Your task to perform on an android device: clear history in the chrome app Image 0: 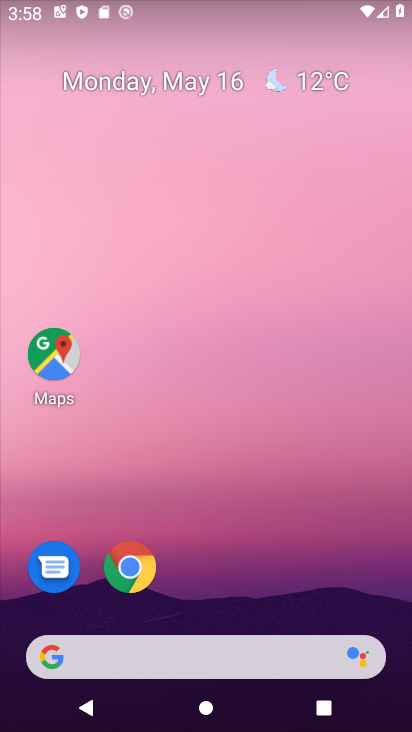
Step 0: drag from (210, 526) to (207, 26)
Your task to perform on an android device: clear history in the chrome app Image 1: 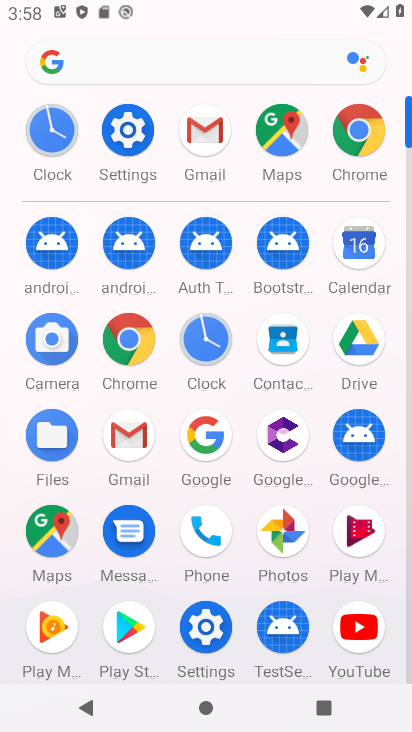
Step 1: click (129, 337)
Your task to perform on an android device: clear history in the chrome app Image 2: 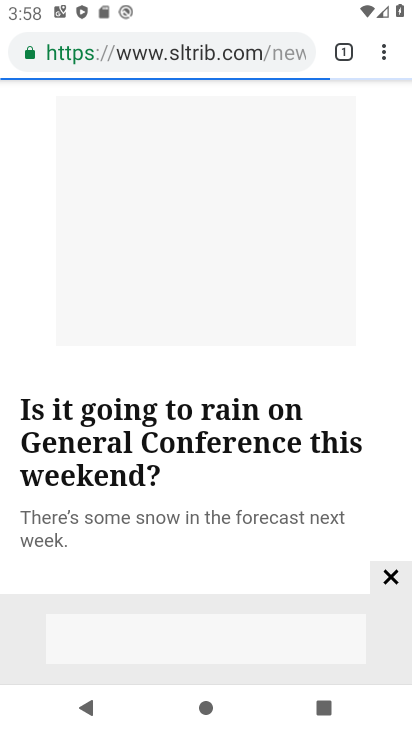
Step 2: drag from (387, 62) to (249, 297)
Your task to perform on an android device: clear history in the chrome app Image 3: 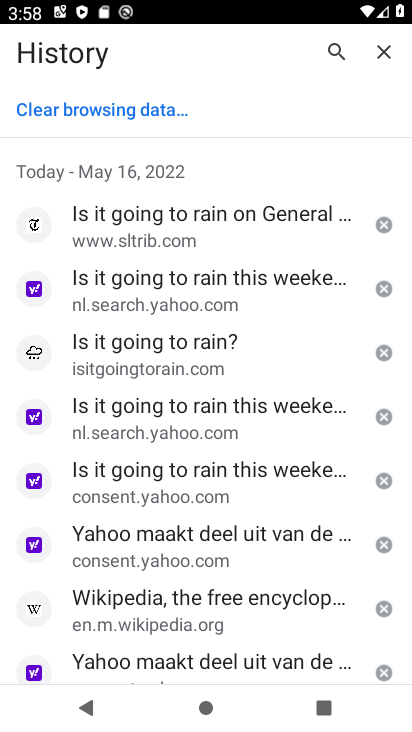
Step 3: click (124, 108)
Your task to perform on an android device: clear history in the chrome app Image 4: 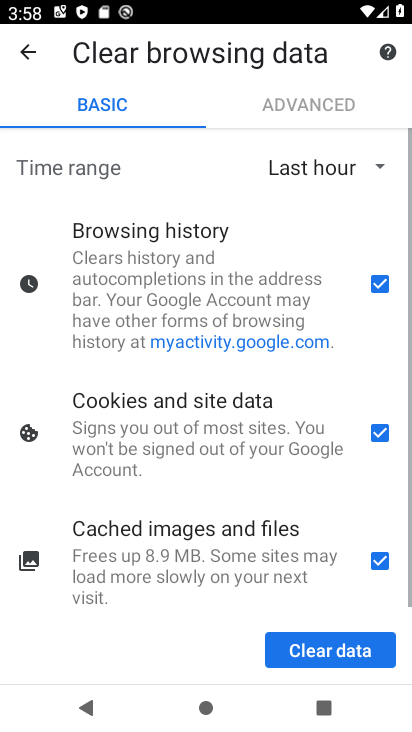
Step 4: click (328, 646)
Your task to perform on an android device: clear history in the chrome app Image 5: 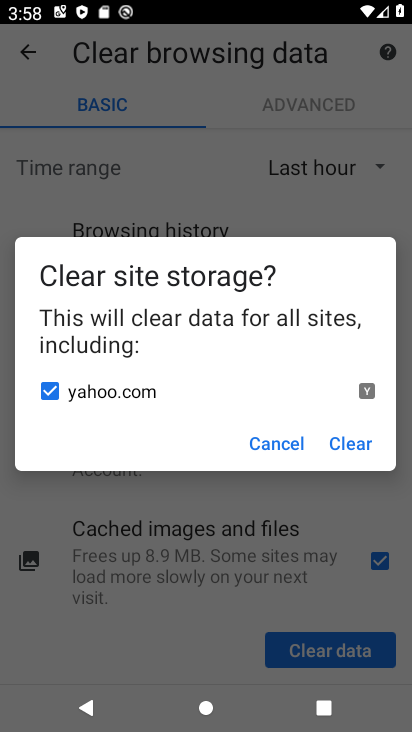
Step 5: click (334, 437)
Your task to perform on an android device: clear history in the chrome app Image 6: 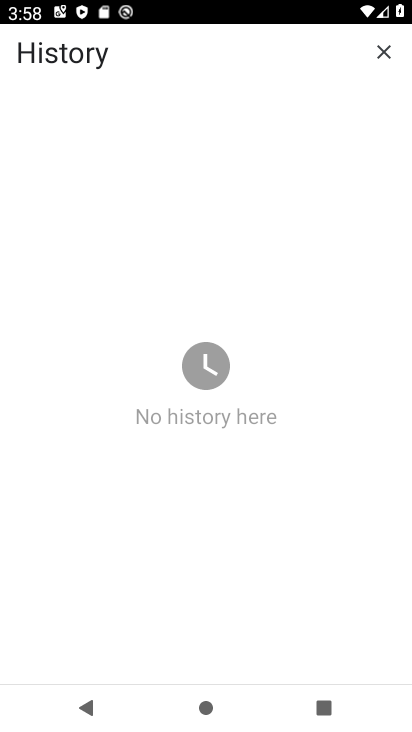
Step 6: task complete